Your task to perform on an android device: change the clock style Image 0: 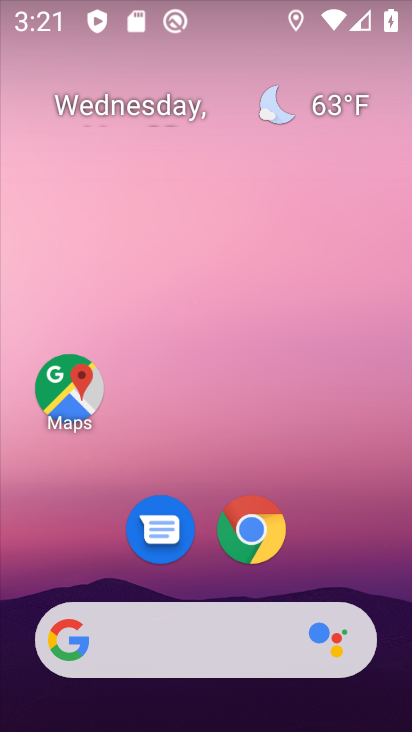
Step 0: drag from (164, 496) to (247, 89)
Your task to perform on an android device: change the clock style Image 1: 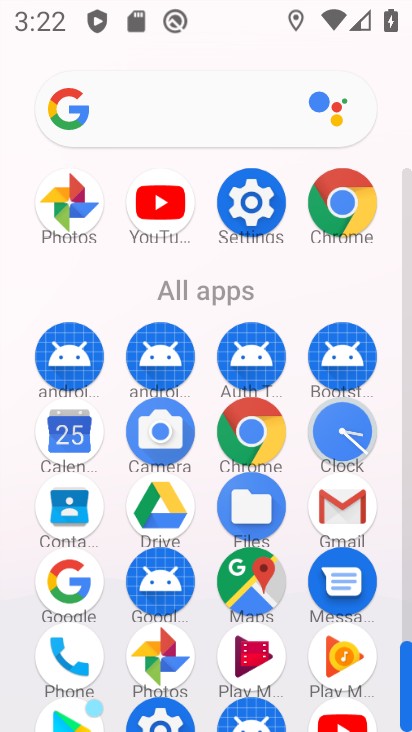
Step 1: click (338, 437)
Your task to perform on an android device: change the clock style Image 2: 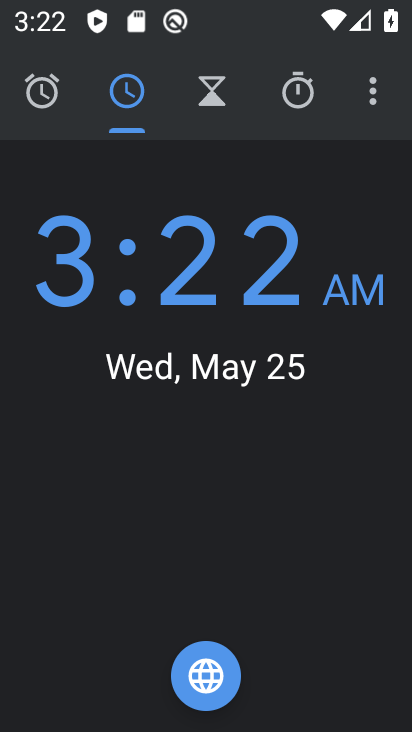
Step 2: click (366, 87)
Your task to perform on an android device: change the clock style Image 3: 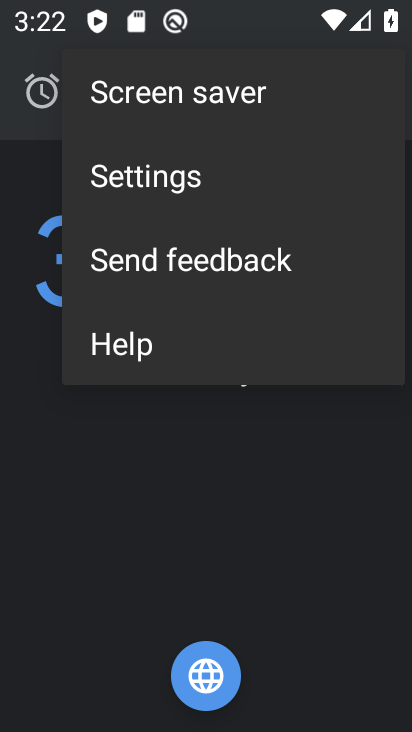
Step 3: click (251, 178)
Your task to perform on an android device: change the clock style Image 4: 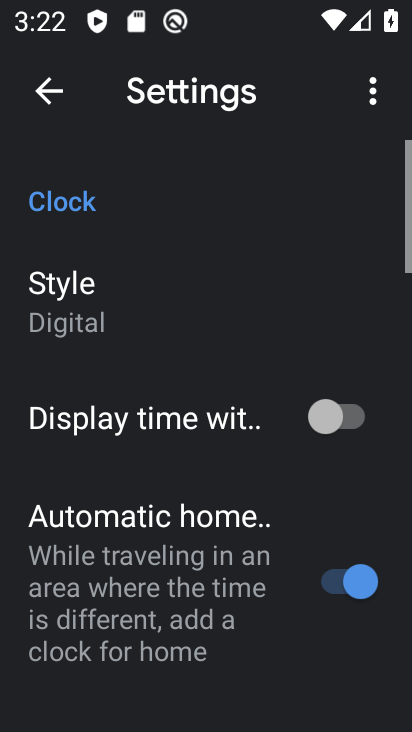
Step 4: click (204, 324)
Your task to perform on an android device: change the clock style Image 5: 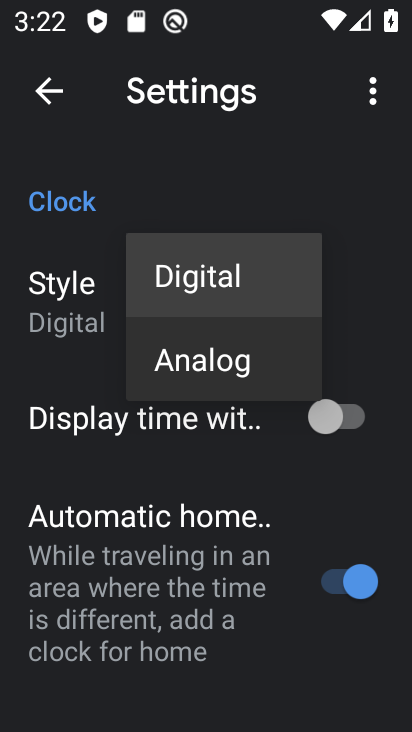
Step 5: click (204, 369)
Your task to perform on an android device: change the clock style Image 6: 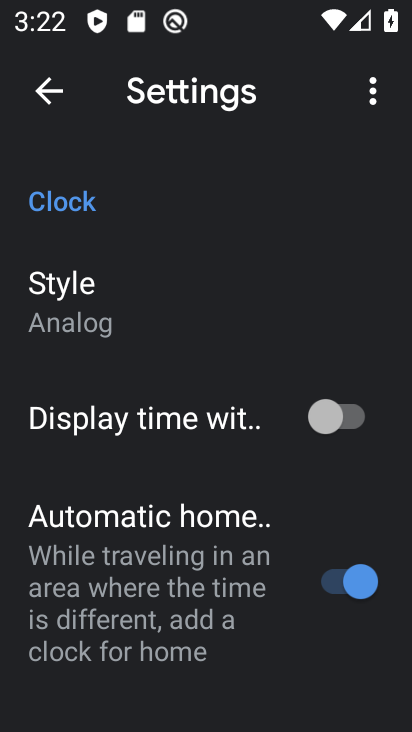
Step 6: task complete